Your task to perform on an android device: Check the weather Image 0: 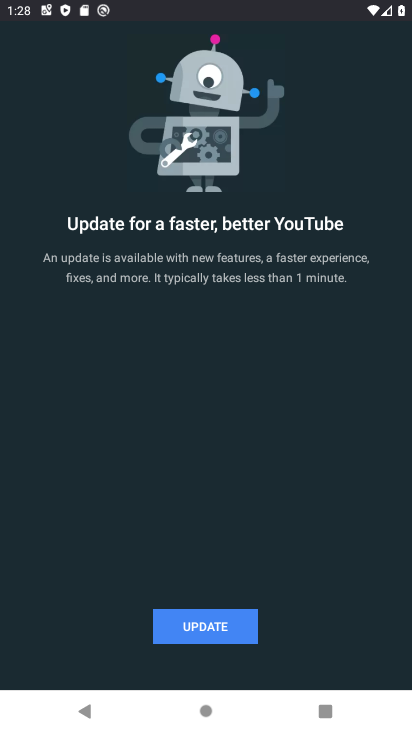
Step 0: press home button
Your task to perform on an android device: Check the weather Image 1: 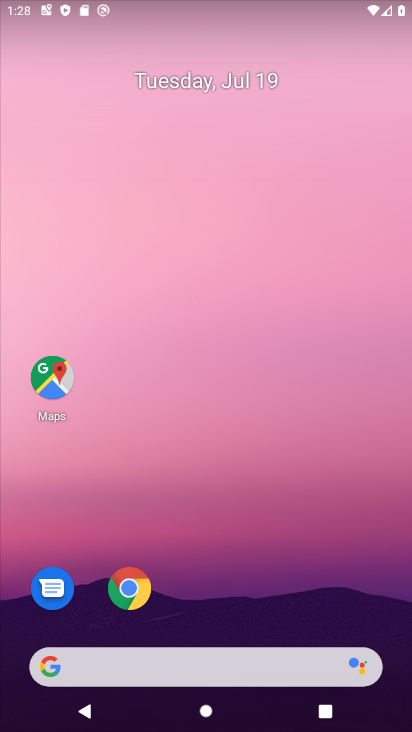
Step 1: click (107, 660)
Your task to perform on an android device: Check the weather Image 2: 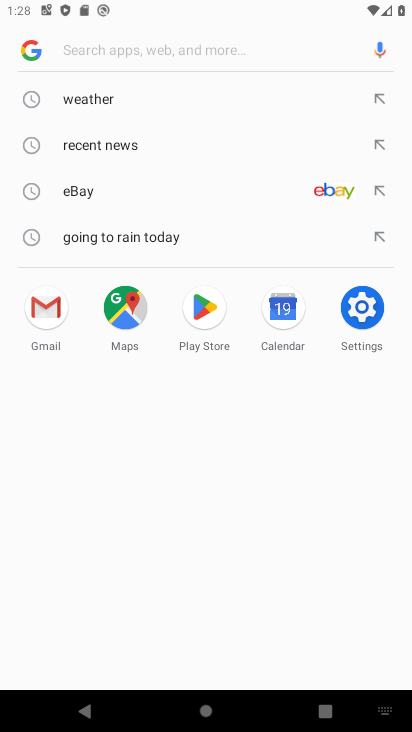
Step 2: click (71, 102)
Your task to perform on an android device: Check the weather Image 3: 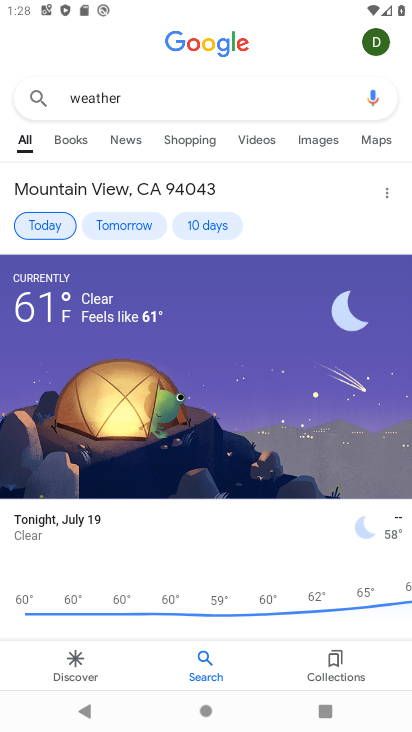
Step 3: task complete